Your task to perform on an android device: check storage Image 0: 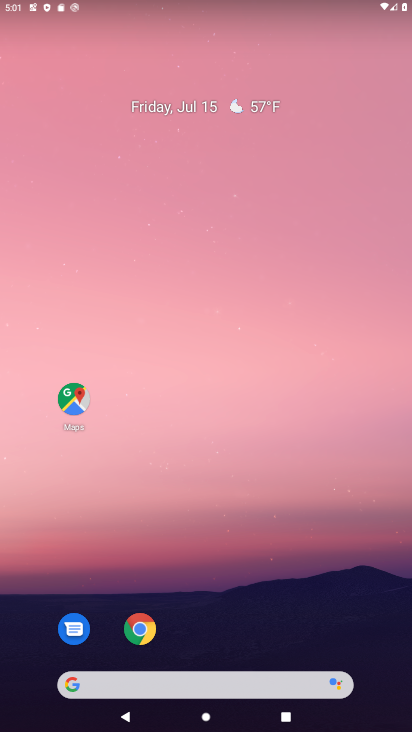
Step 0: press home button
Your task to perform on an android device: check storage Image 1: 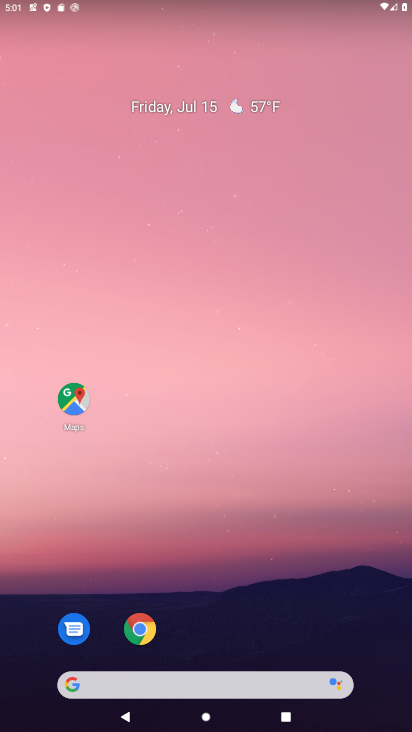
Step 1: drag from (290, 573) to (330, 38)
Your task to perform on an android device: check storage Image 2: 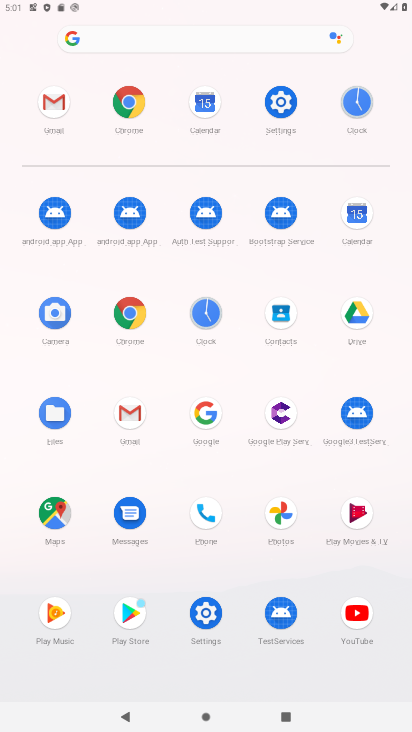
Step 2: click (281, 104)
Your task to perform on an android device: check storage Image 3: 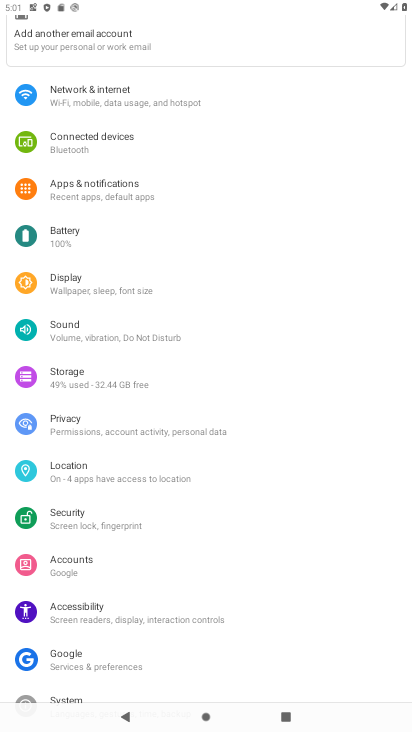
Step 3: click (61, 369)
Your task to perform on an android device: check storage Image 4: 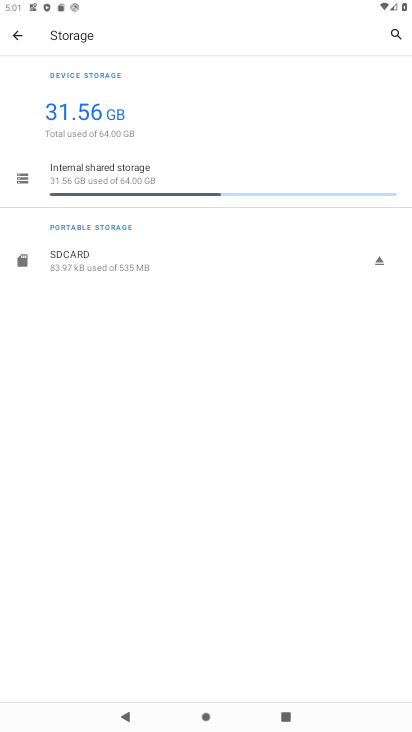
Step 4: task complete